Your task to perform on an android device: open app "Upside-Cash back on gas & food" (install if not already installed) Image 0: 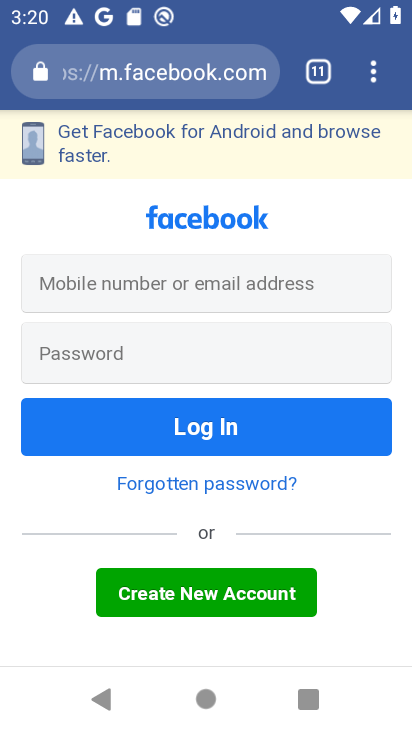
Step 0: press home button
Your task to perform on an android device: open app "Upside-Cash back on gas & food" (install if not already installed) Image 1: 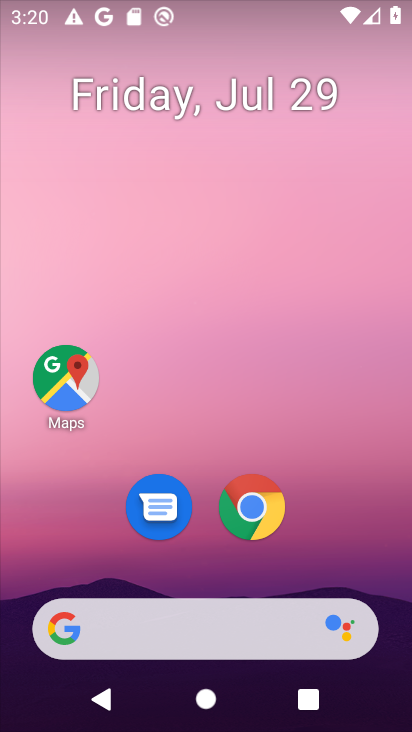
Step 1: click (173, 635)
Your task to perform on an android device: open app "Upside-Cash back on gas & food" (install if not already installed) Image 2: 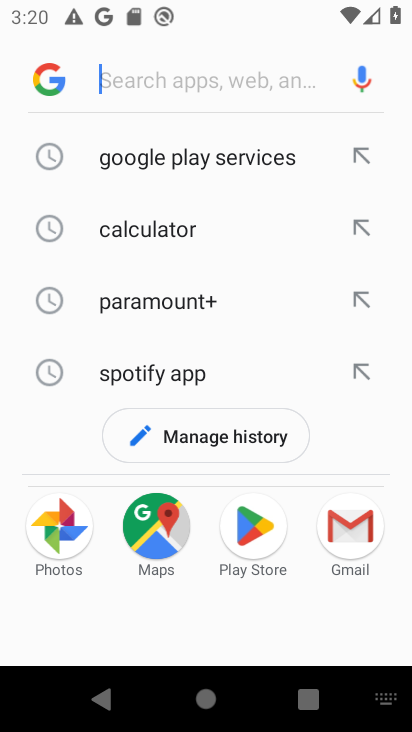
Step 2: type "upside cash"
Your task to perform on an android device: open app "Upside-Cash back on gas & food" (install if not already installed) Image 3: 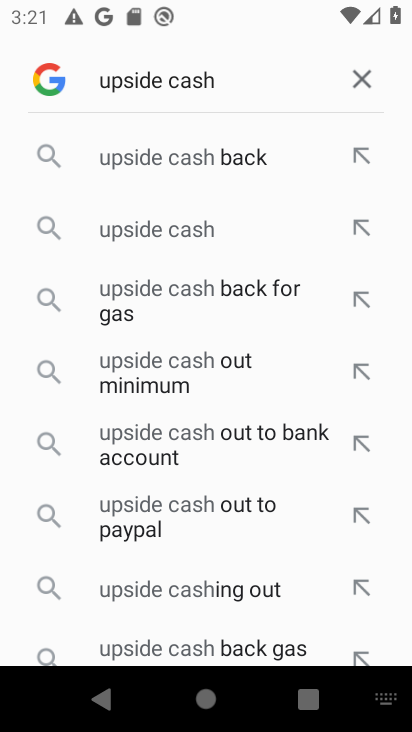
Step 3: click (171, 158)
Your task to perform on an android device: open app "Upside-Cash back on gas & food" (install if not already installed) Image 4: 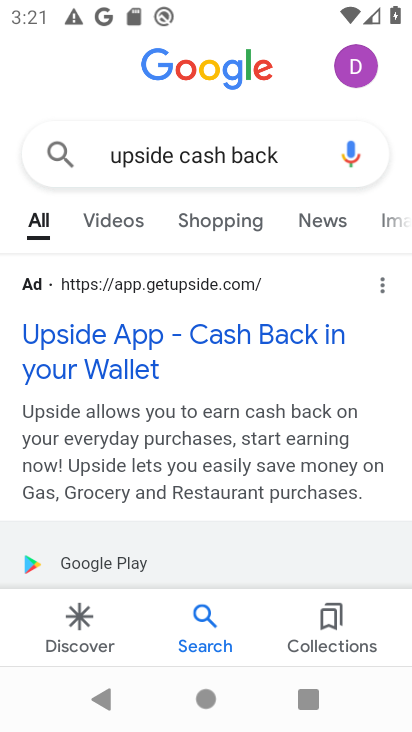
Step 4: task complete